Your task to perform on an android device: install app "WhatsApp Messenger" Image 0: 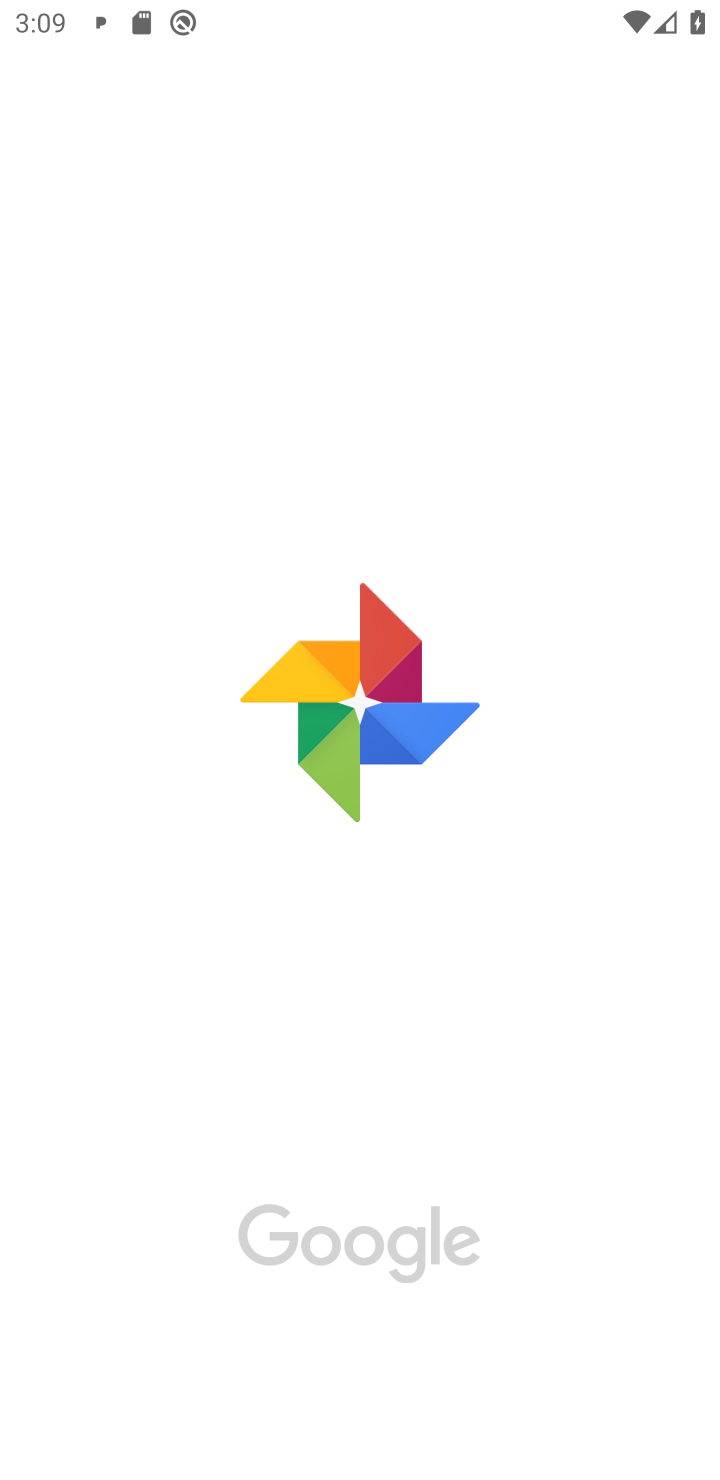
Step 0: drag from (218, 1308) to (344, 233)
Your task to perform on an android device: install app "WhatsApp Messenger" Image 1: 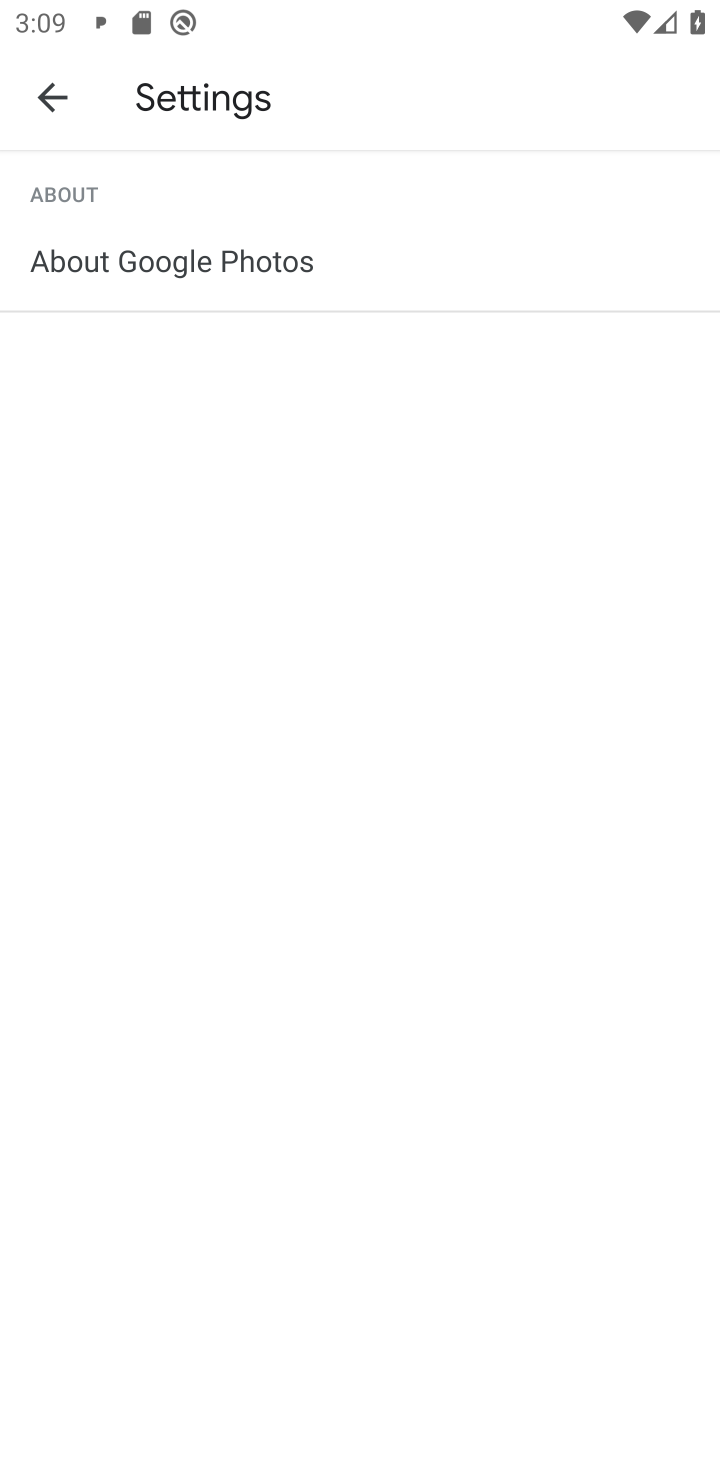
Step 1: press home button
Your task to perform on an android device: install app "WhatsApp Messenger" Image 2: 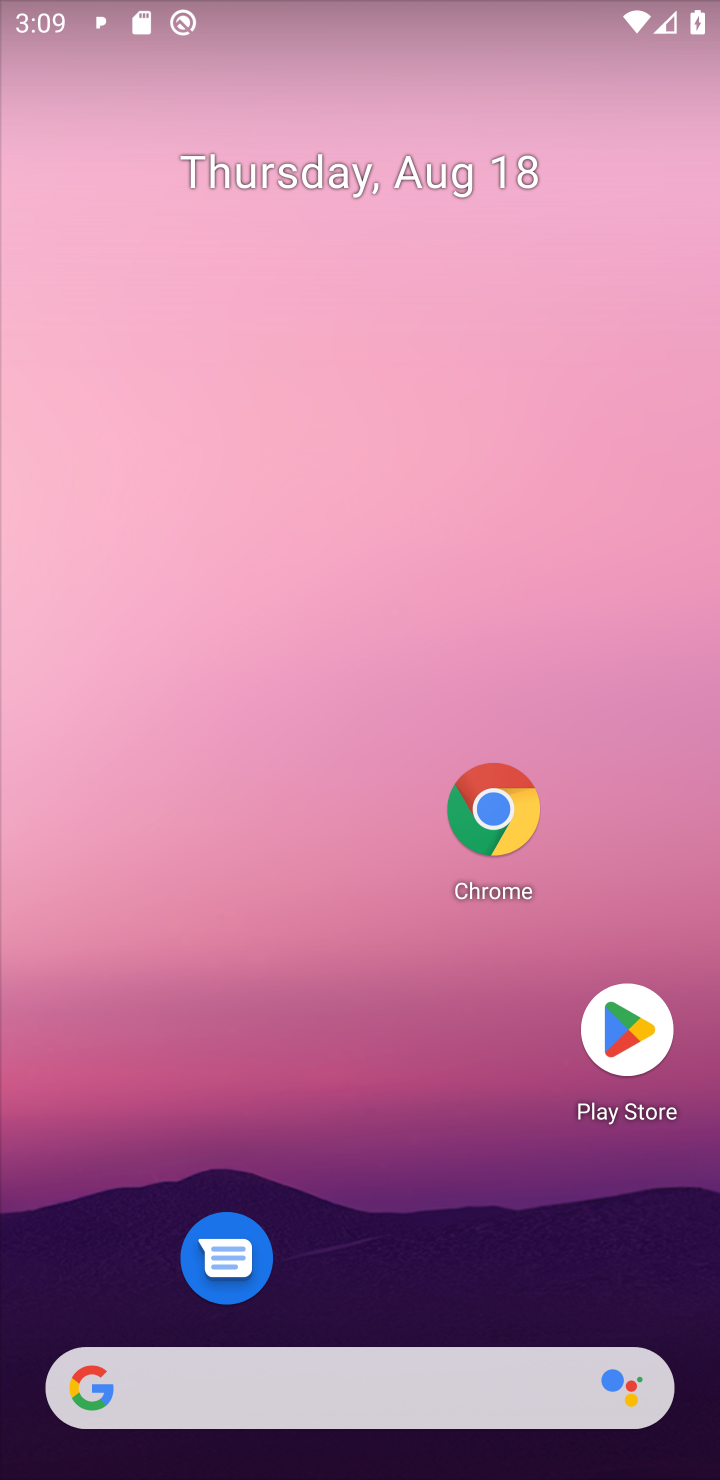
Step 2: drag from (433, 1192) to (472, 348)
Your task to perform on an android device: install app "WhatsApp Messenger" Image 3: 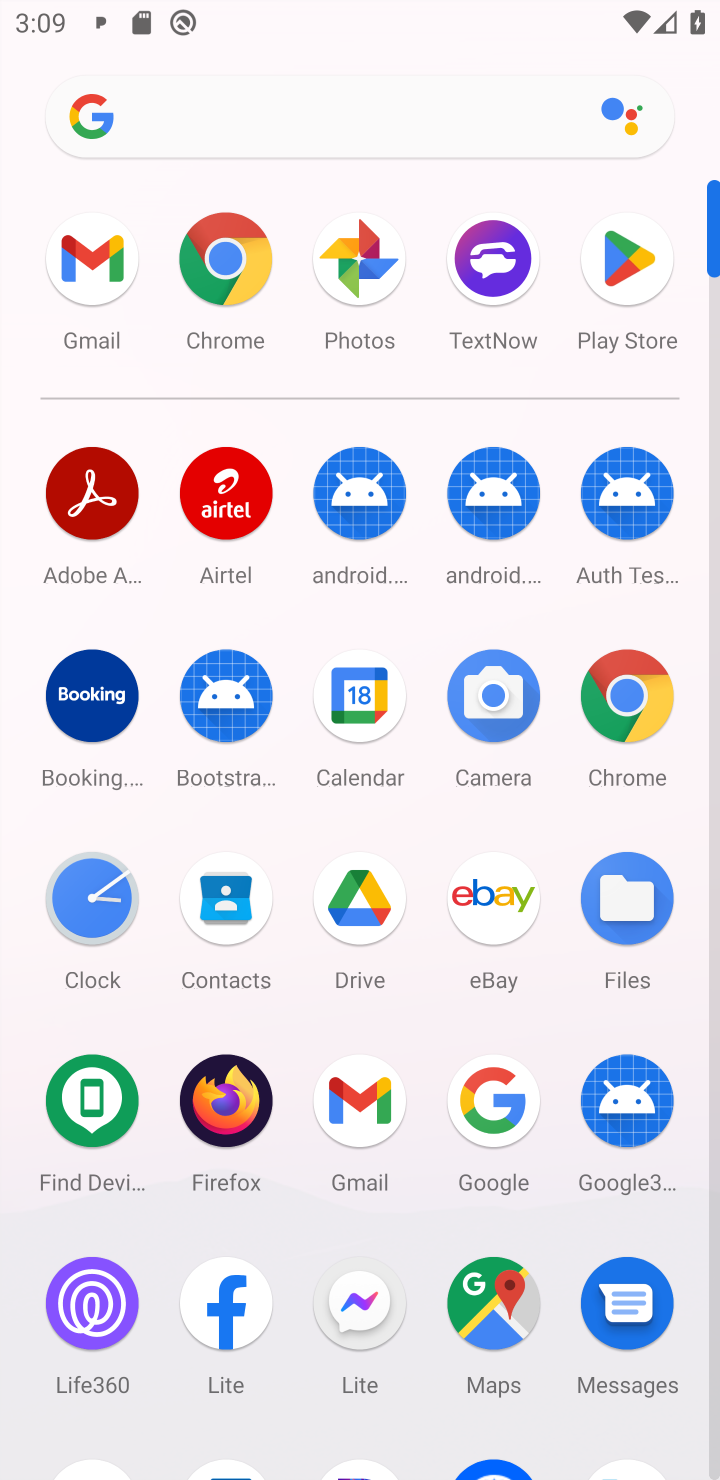
Step 3: click (634, 248)
Your task to perform on an android device: install app "WhatsApp Messenger" Image 4: 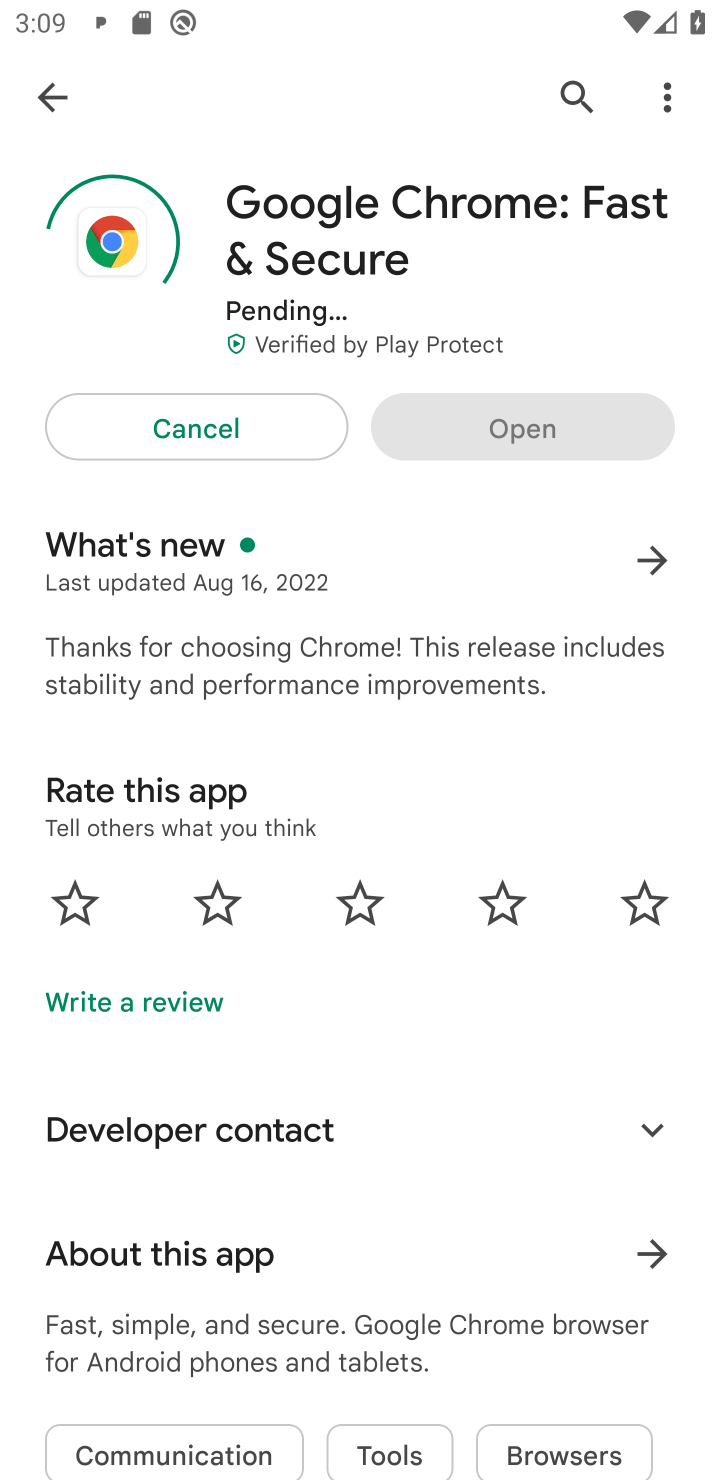
Step 4: click (60, 91)
Your task to perform on an android device: install app "WhatsApp Messenger" Image 5: 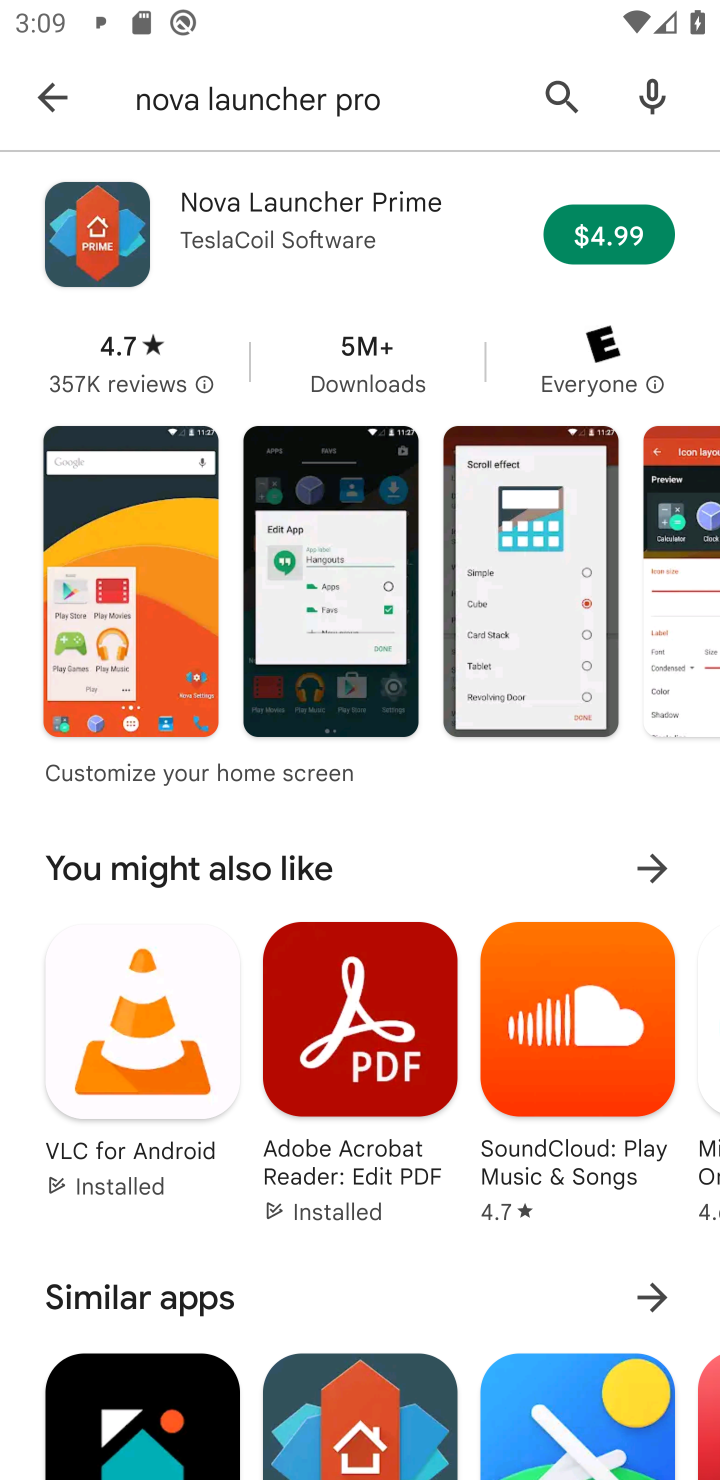
Step 5: click (42, 77)
Your task to perform on an android device: install app "WhatsApp Messenger" Image 6: 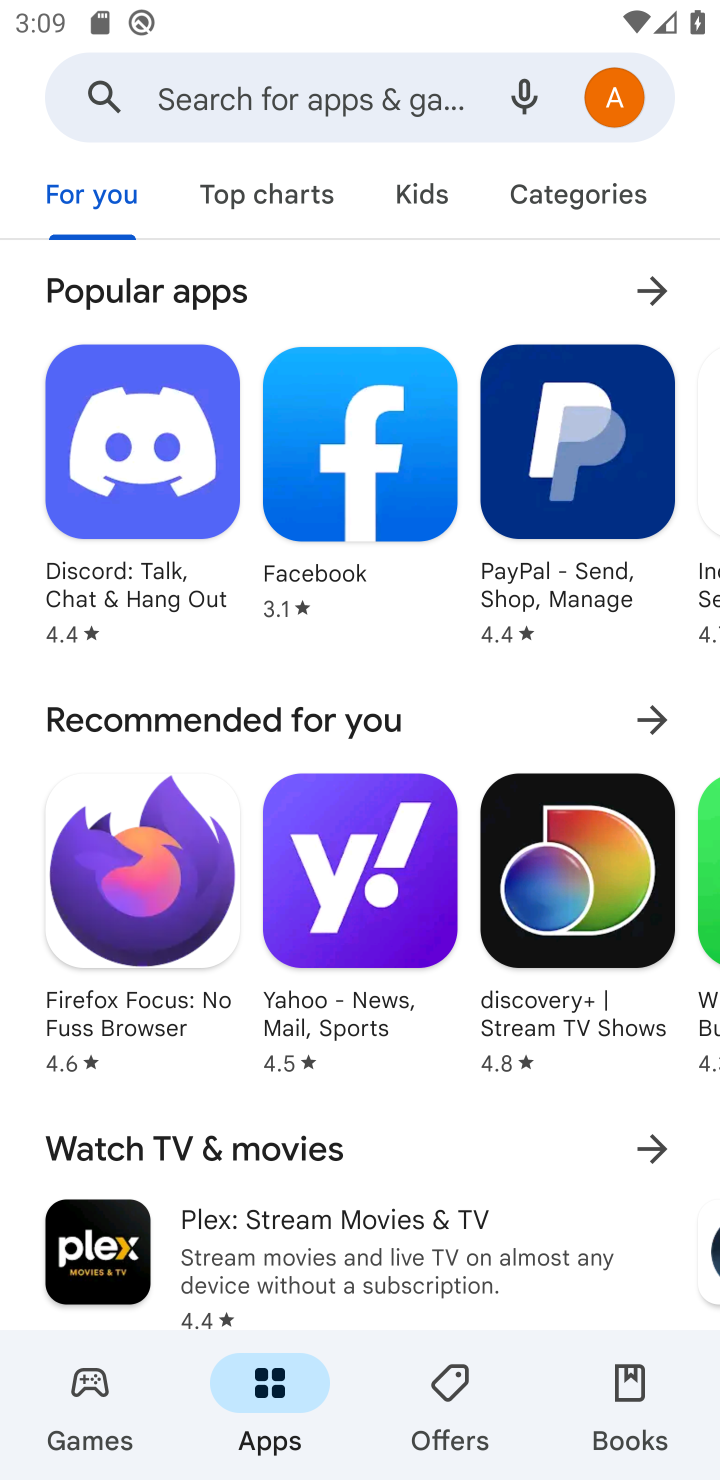
Step 6: click (417, 80)
Your task to perform on an android device: install app "WhatsApp Messenger" Image 7: 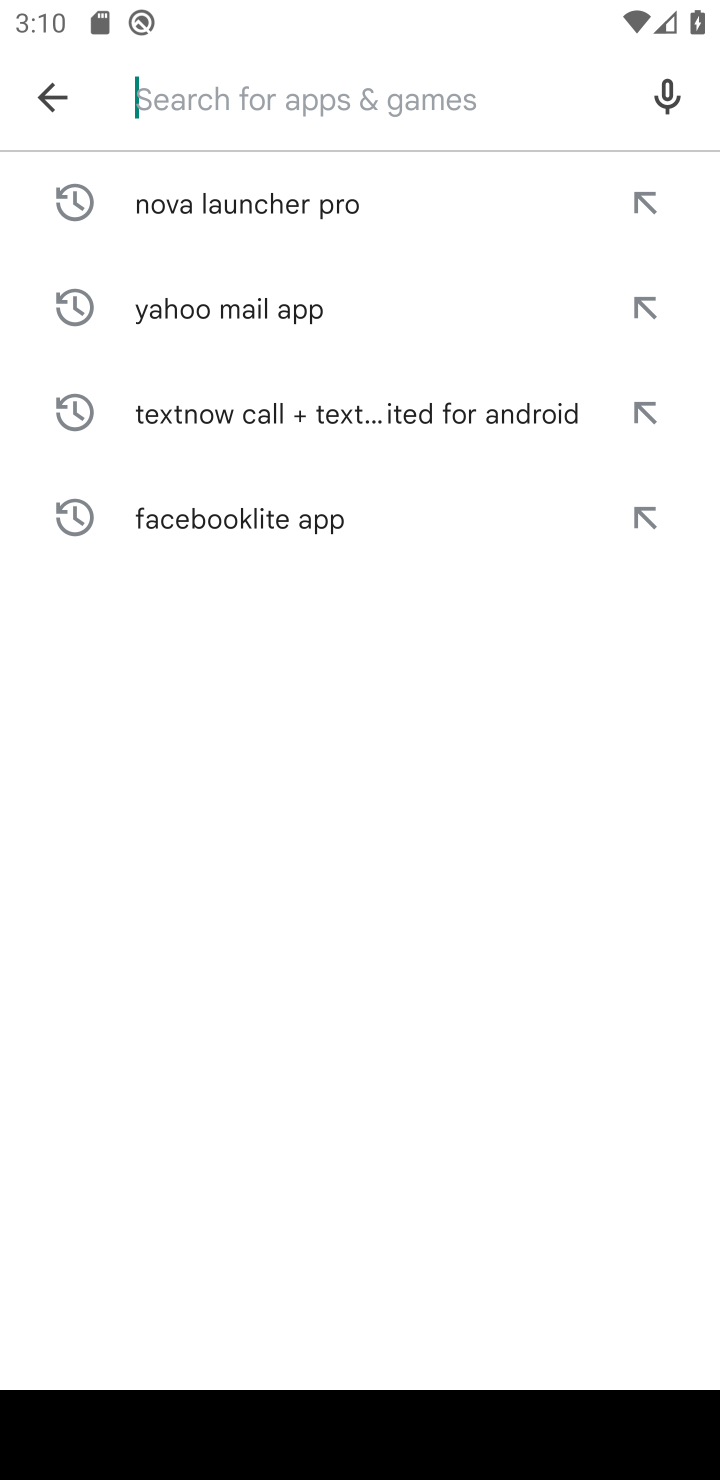
Step 7: type "whatsapp messenger  "
Your task to perform on an android device: install app "WhatsApp Messenger" Image 8: 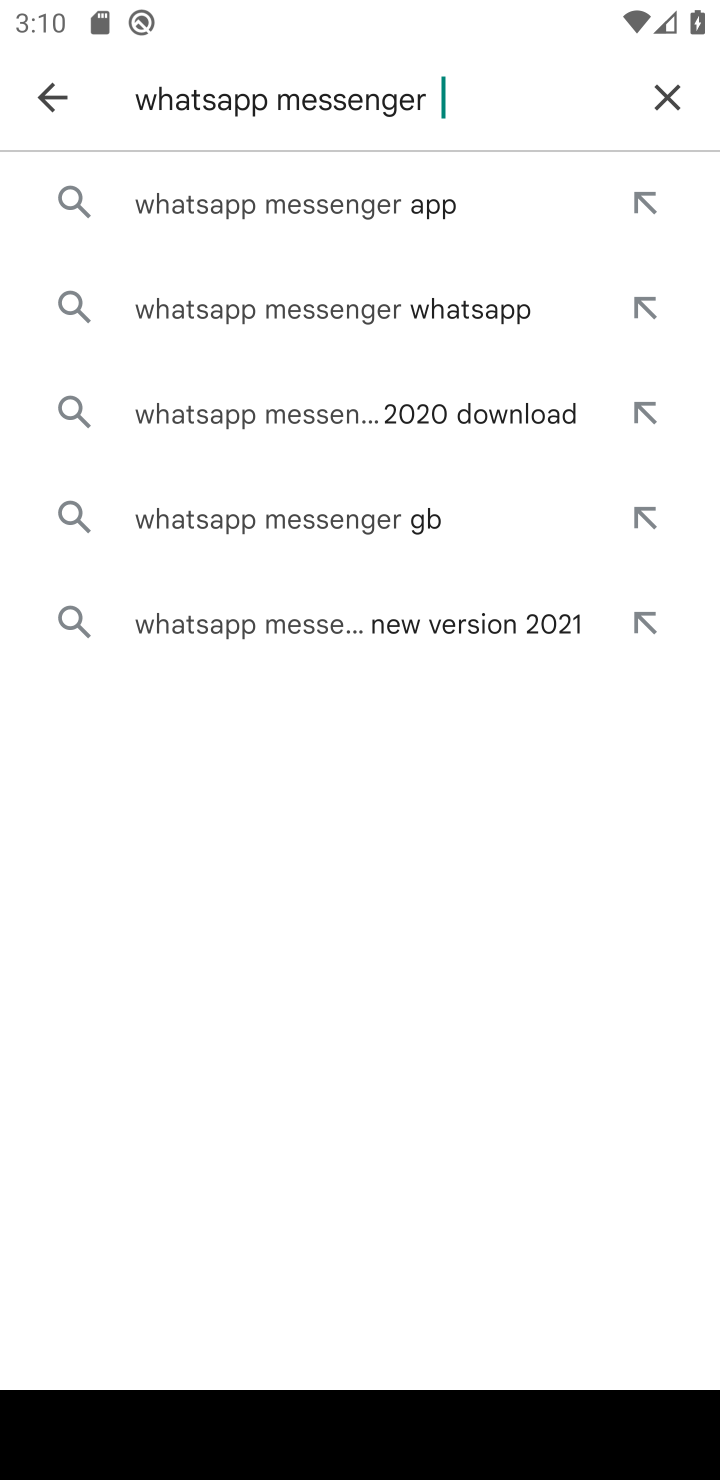
Step 8: click (247, 249)
Your task to perform on an android device: install app "WhatsApp Messenger" Image 9: 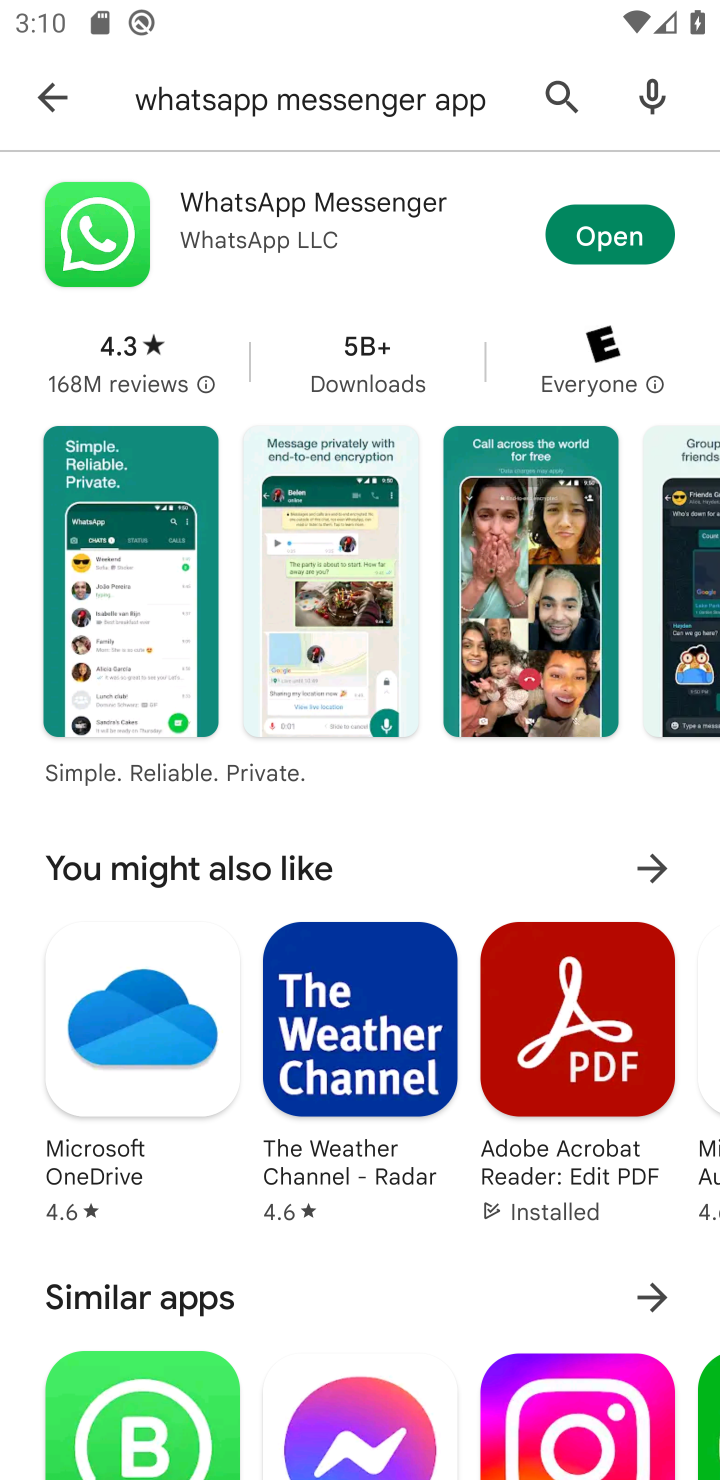
Step 9: click (603, 229)
Your task to perform on an android device: install app "WhatsApp Messenger" Image 10: 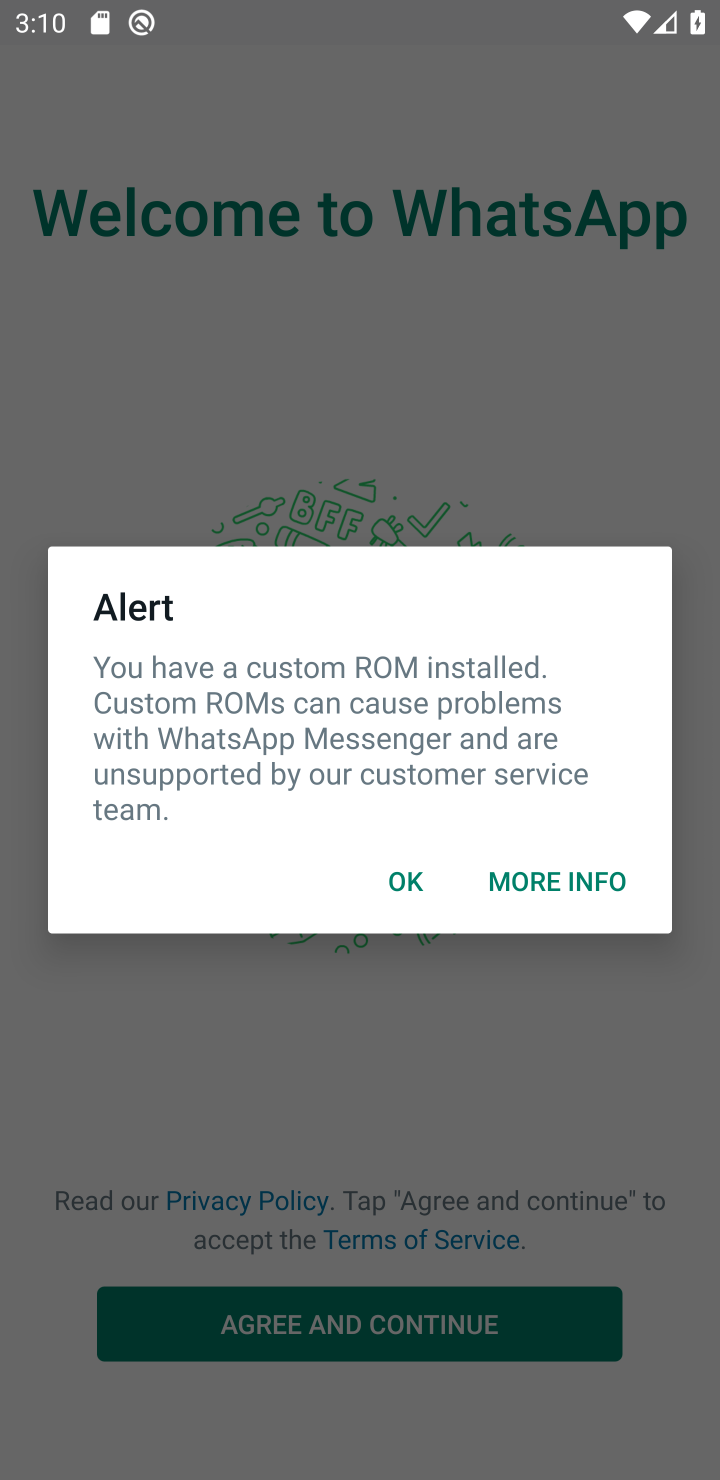
Step 10: click (398, 870)
Your task to perform on an android device: install app "WhatsApp Messenger" Image 11: 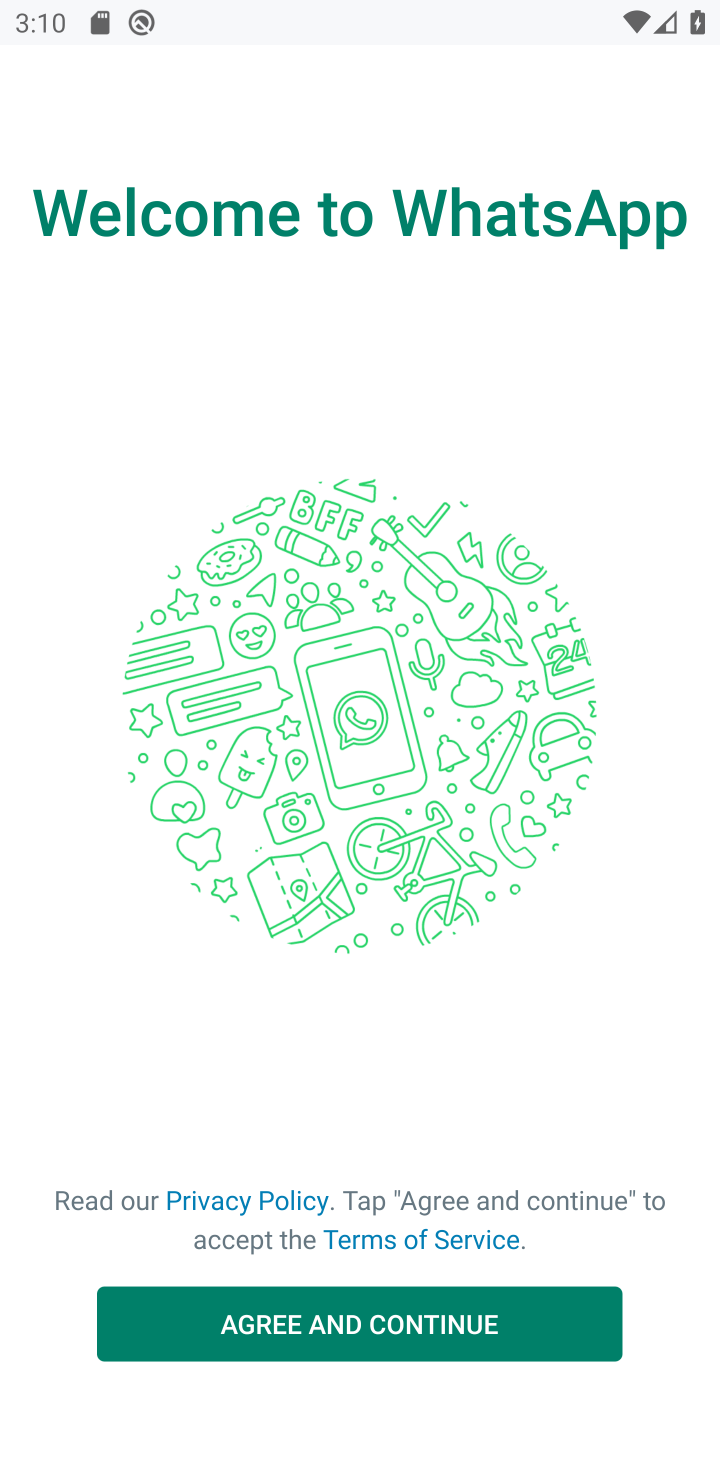
Step 11: task complete